Your task to perform on an android device: Toggle the flashlight Image 0: 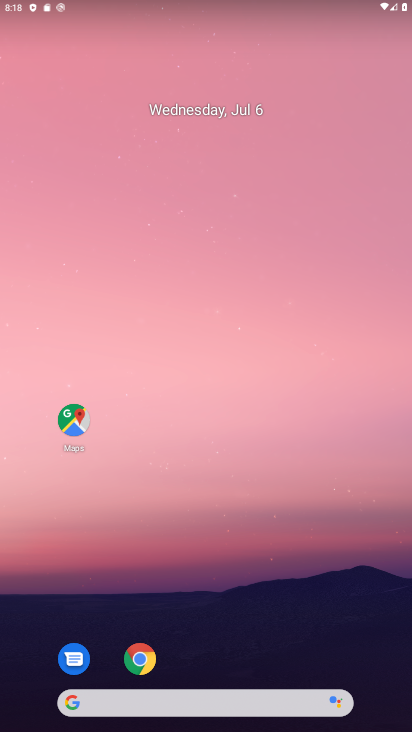
Step 0: drag from (250, 10) to (235, 587)
Your task to perform on an android device: Toggle the flashlight Image 1: 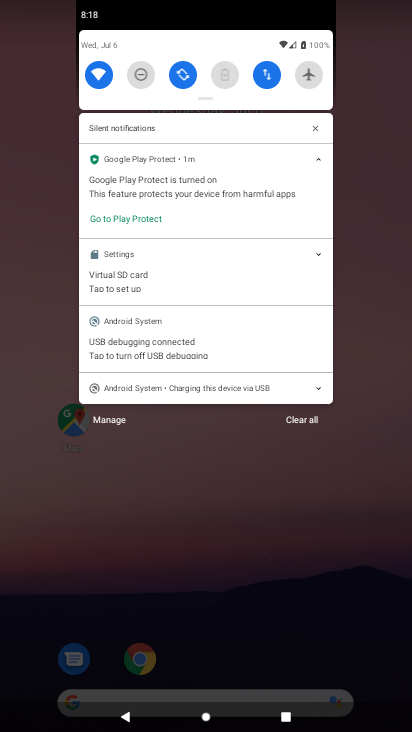
Step 1: task complete